Your task to perform on an android device: turn on bluetooth scan Image 0: 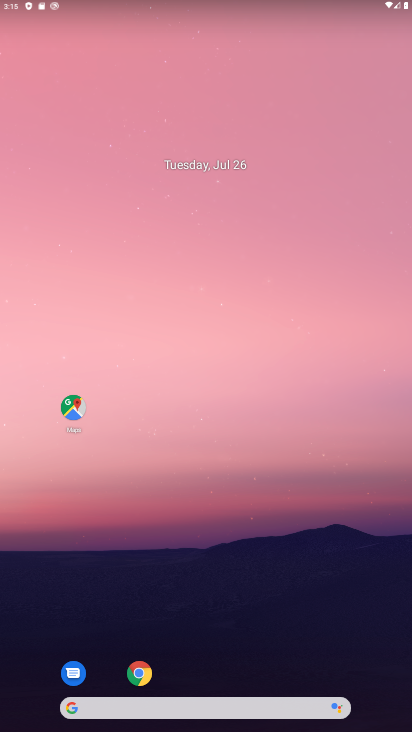
Step 0: drag from (270, 619) to (248, 71)
Your task to perform on an android device: turn on bluetooth scan Image 1: 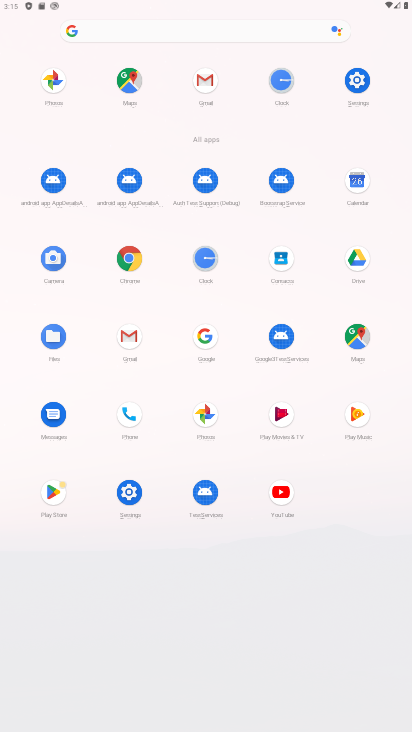
Step 1: click (351, 81)
Your task to perform on an android device: turn on bluetooth scan Image 2: 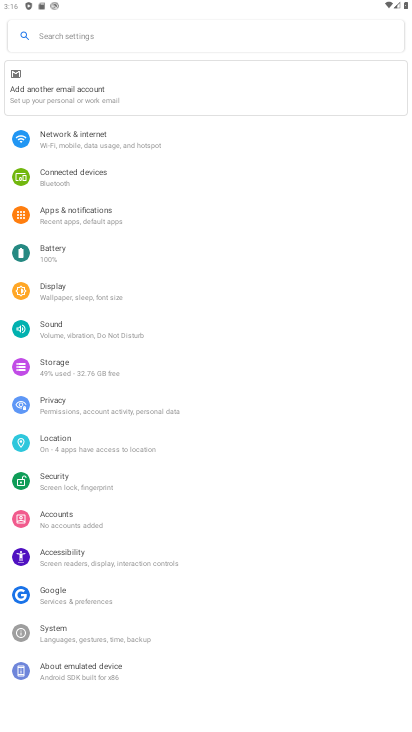
Step 2: click (73, 453)
Your task to perform on an android device: turn on bluetooth scan Image 3: 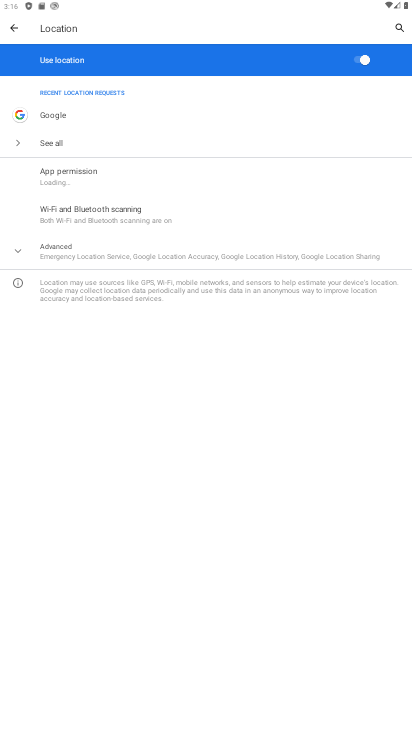
Step 3: click (73, 211)
Your task to perform on an android device: turn on bluetooth scan Image 4: 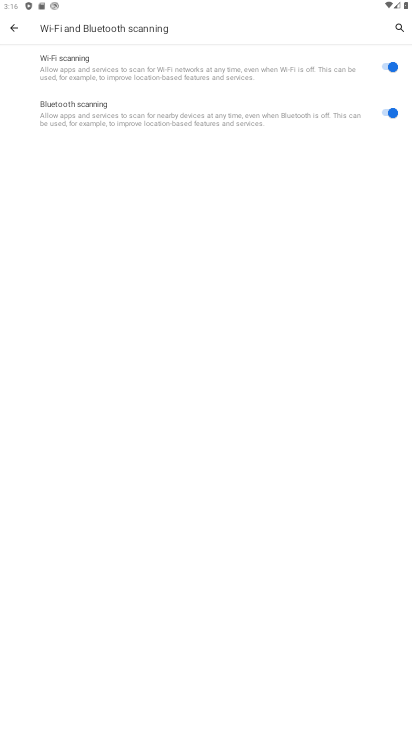
Step 4: task complete